Your task to perform on an android device: turn on location history Image 0: 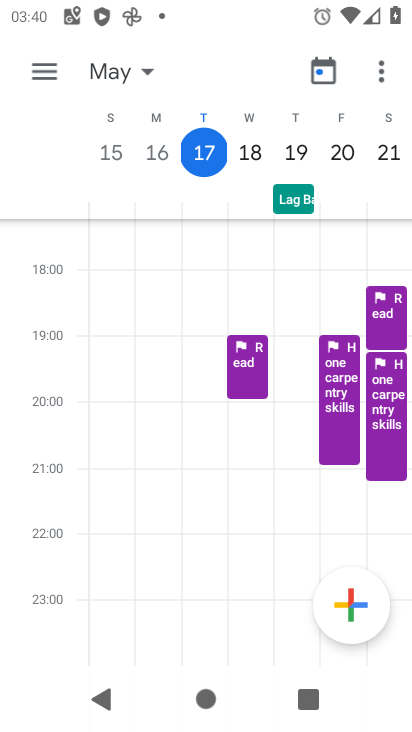
Step 0: press home button
Your task to perform on an android device: turn on location history Image 1: 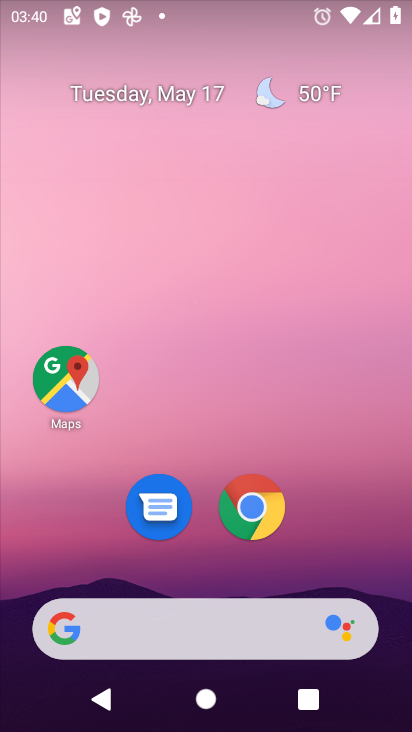
Step 1: drag from (351, 535) to (229, 59)
Your task to perform on an android device: turn on location history Image 2: 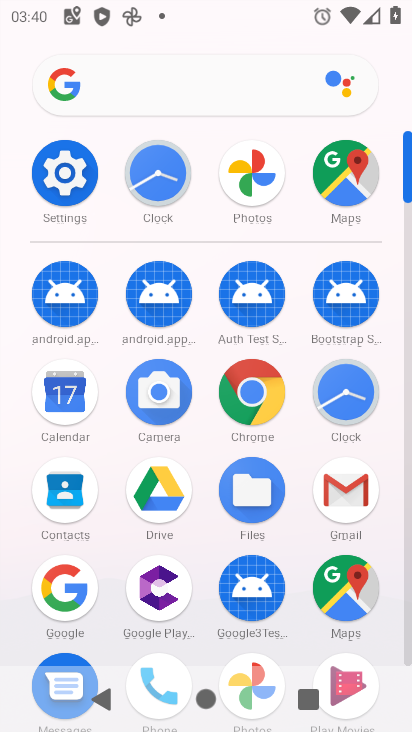
Step 2: click (57, 175)
Your task to perform on an android device: turn on location history Image 3: 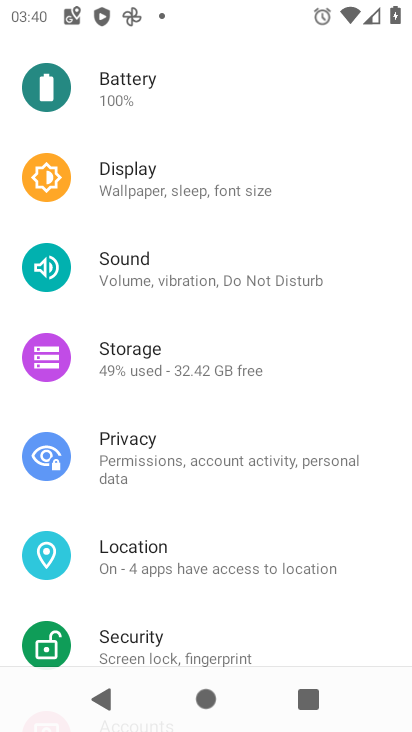
Step 3: click (227, 566)
Your task to perform on an android device: turn on location history Image 4: 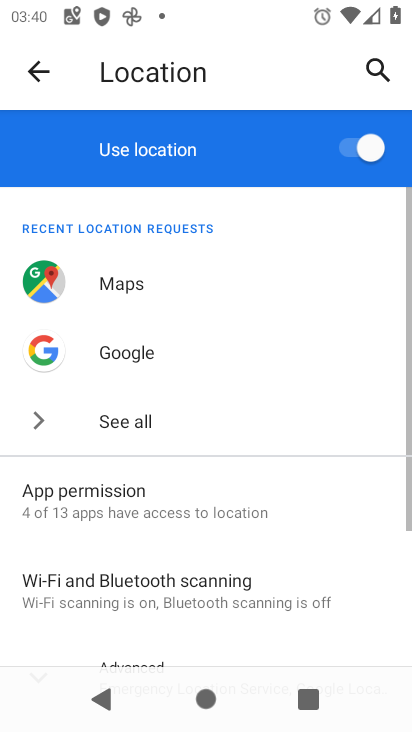
Step 4: drag from (247, 485) to (233, 79)
Your task to perform on an android device: turn on location history Image 5: 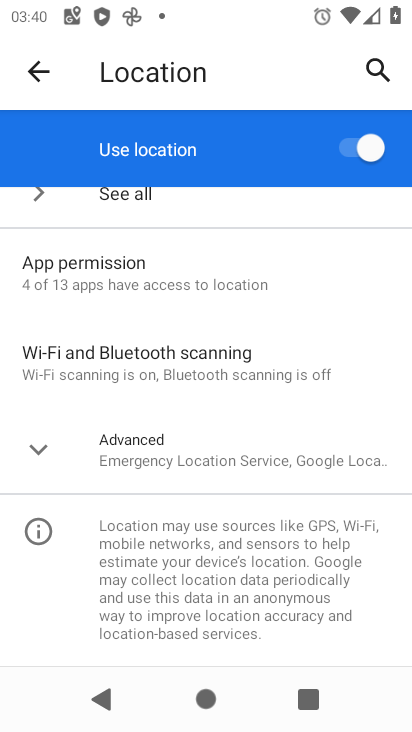
Step 5: click (207, 442)
Your task to perform on an android device: turn on location history Image 6: 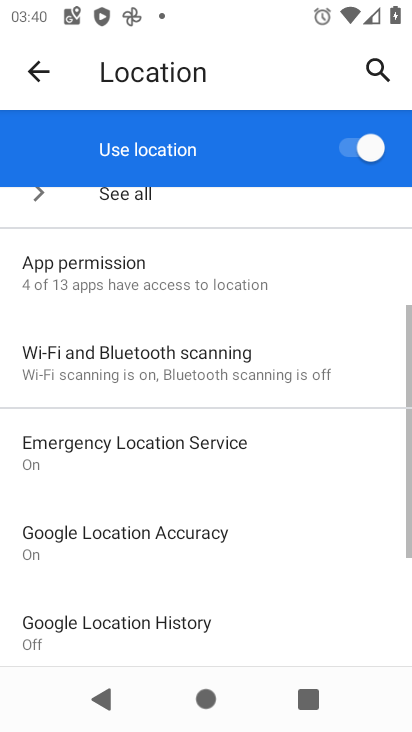
Step 6: drag from (188, 543) to (213, 238)
Your task to perform on an android device: turn on location history Image 7: 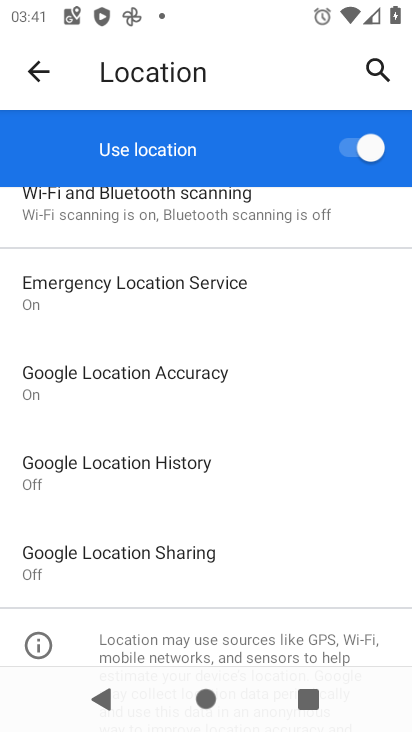
Step 7: click (179, 469)
Your task to perform on an android device: turn on location history Image 8: 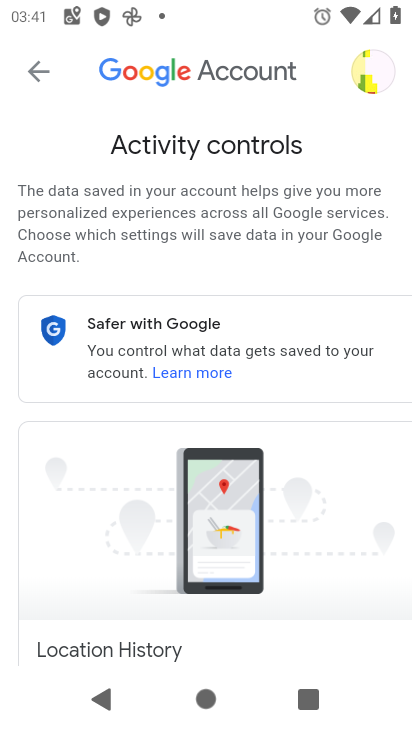
Step 8: task complete